Your task to perform on an android device: What's the weather going to be tomorrow? Image 0: 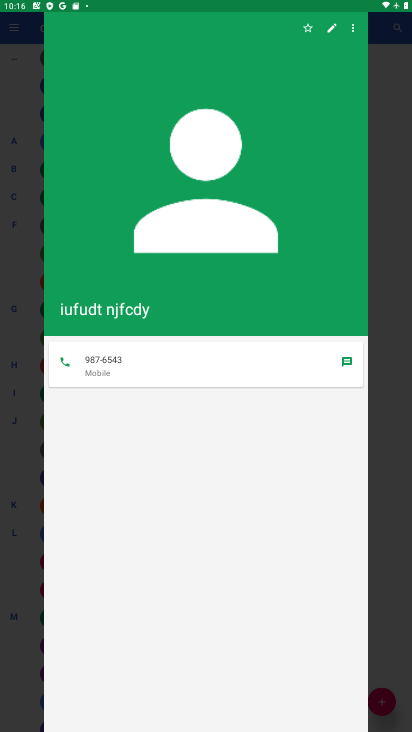
Step 0: press home button
Your task to perform on an android device: What's the weather going to be tomorrow? Image 1: 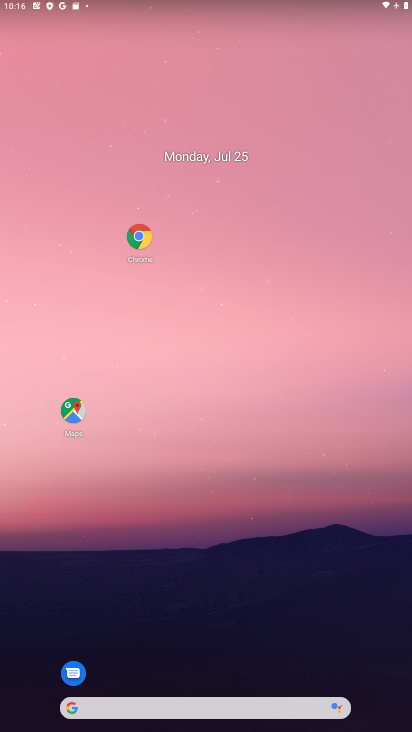
Step 1: drag from (212, 657) to (229, 4)
Your task to perform on an android device: What's the weather going to be tomorrow? Image 2: 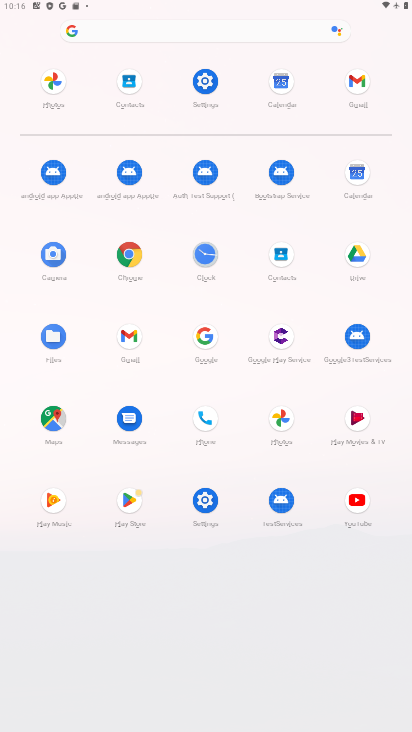
Step 2: click (173, 31)
Your task to perform on an android device: What's the weather going to be tomorrow? Image 3: 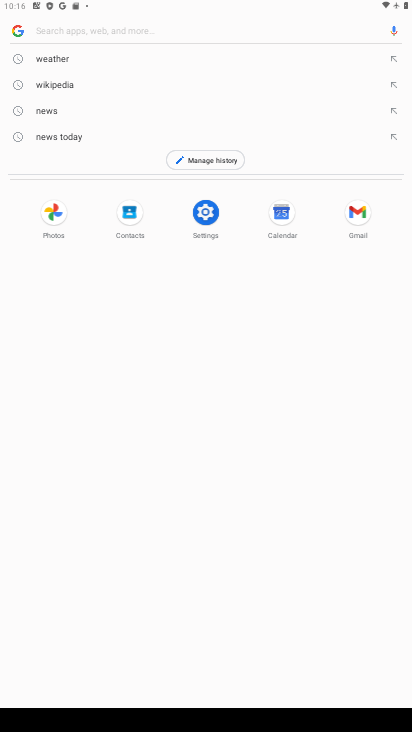
Step 3: click (88, 64)
Your task to perform on an android device: What's the weather going to be tomorrow? Image 4: 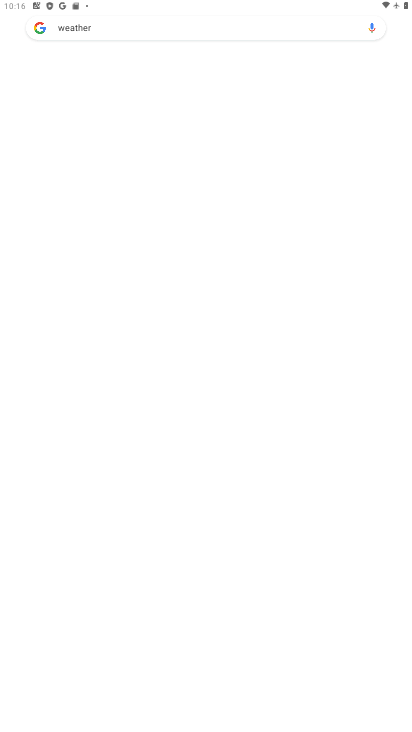
Step 4: task complete